Your task to perform on an android device: Find coffee shops on Maps Image 0: 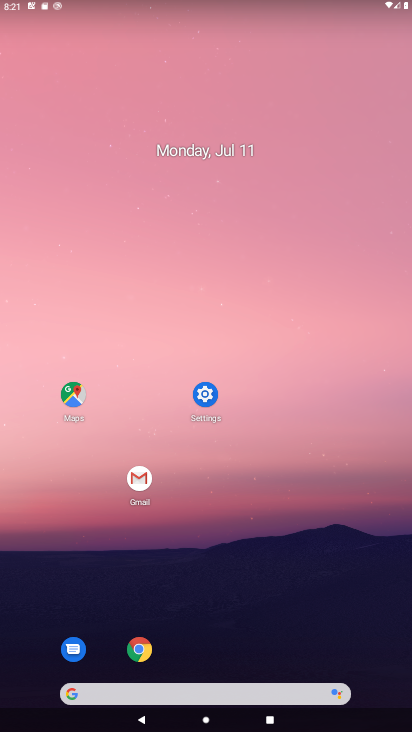
Step 0: click (79, 391)
Your task to perform on an android device: Find coffee shops on Maps Image 1: 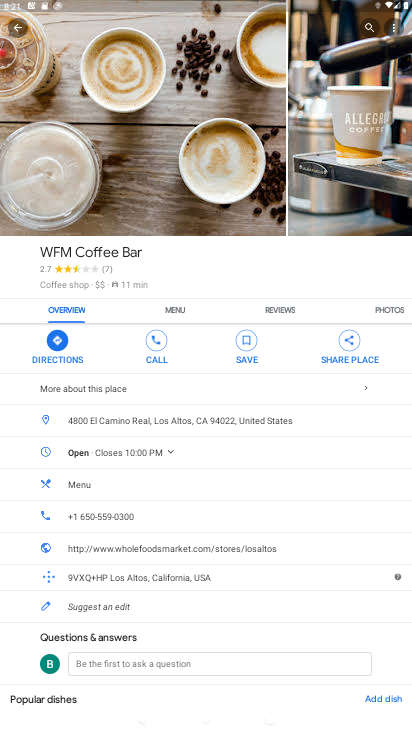
Step 1: task complete